Your task to perform on an android device: Open Chrome and go to the settings page Image 0: 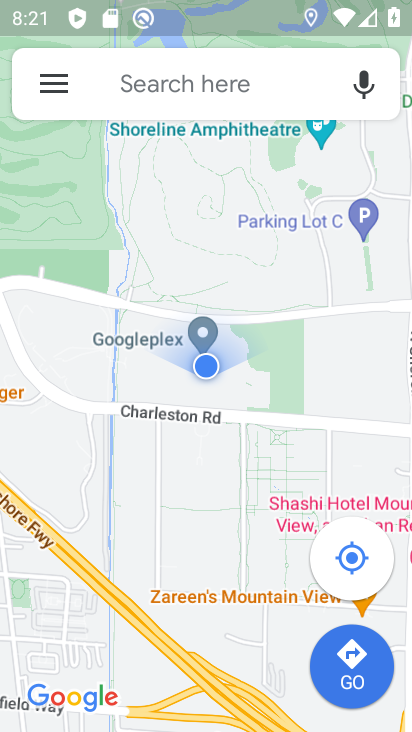
Step 0: press home button
Your task to perform on an android device: Open Chrome and go to the settings page Image 1: 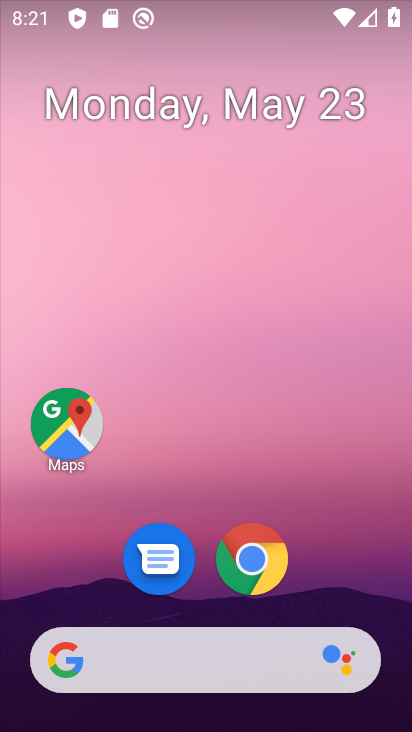
Step 1: click (241, 563)
Your task to perform on an android device: Open Chrome and go to the settings page Image 2: 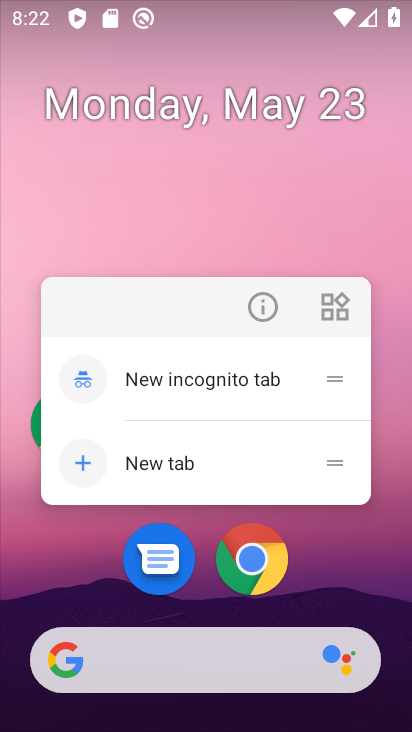
Step 2: click (261, 553)
Your task to perform on an android device: Open Chrome and go to the settings page Image 3: 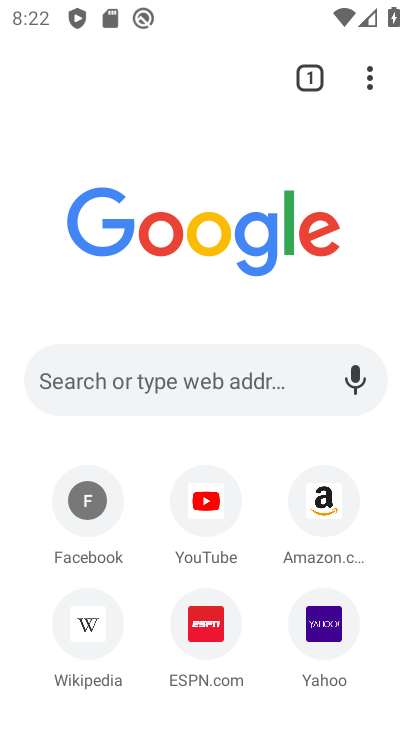
Step 3: click (363, 90)
Your task to perform on an android device: Open Chrome and go to the settings page Image 4: 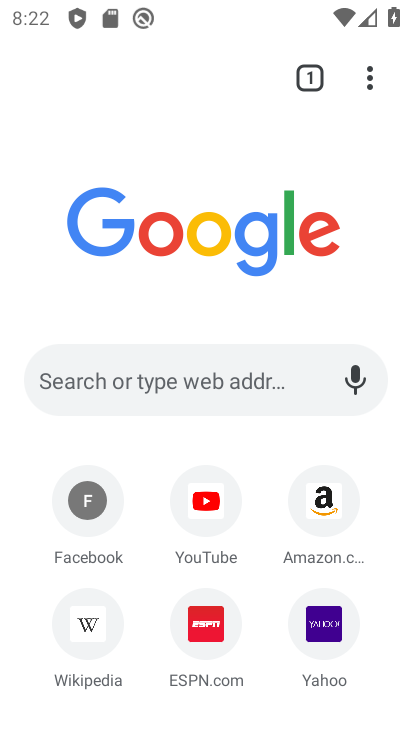
Step 4: click (379, 89)
Your task to perform on an android device: Open Chrome and go to the settings page Image 5: 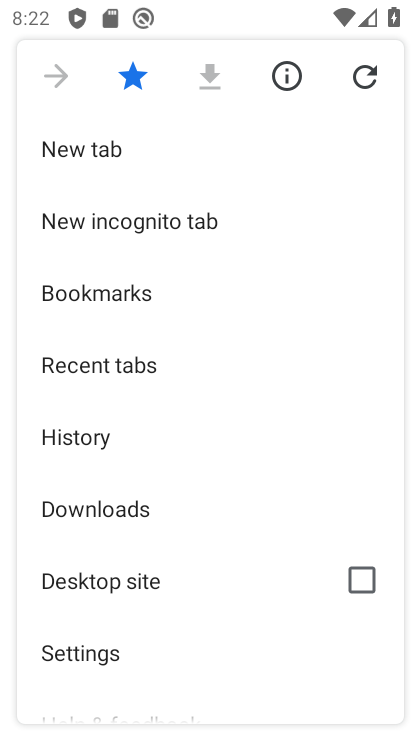
Step 5: drag from (193, 512) to (169, 217)
Your task to perform on an android device: Open Chrome and go to the settings page Image 6: 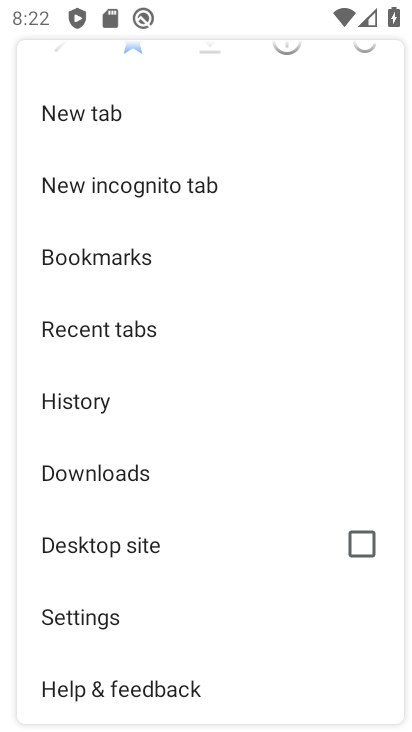
Step 6: click (94, 606)
Your task to perform on an android device: Open Chrome and go to the settings page Image 7: 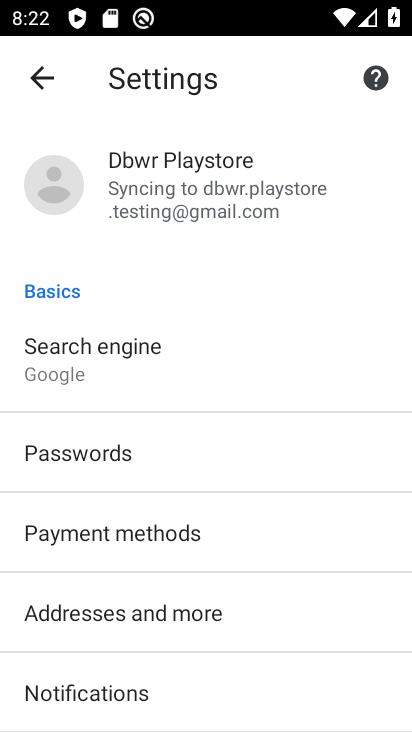
Step 7: task complete